Your task to perform on an android device: Search for custom made wallets on etsy.com Image 0: 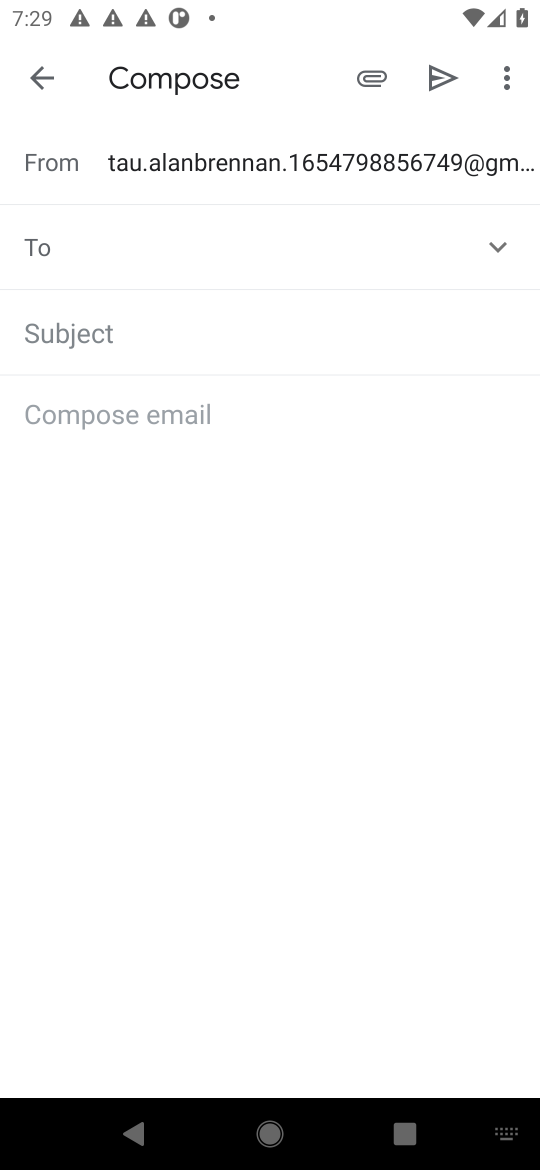
Step 0: press home button
Your task to perform on an android device: Search for custom made wallets on etsy.com Image 1: 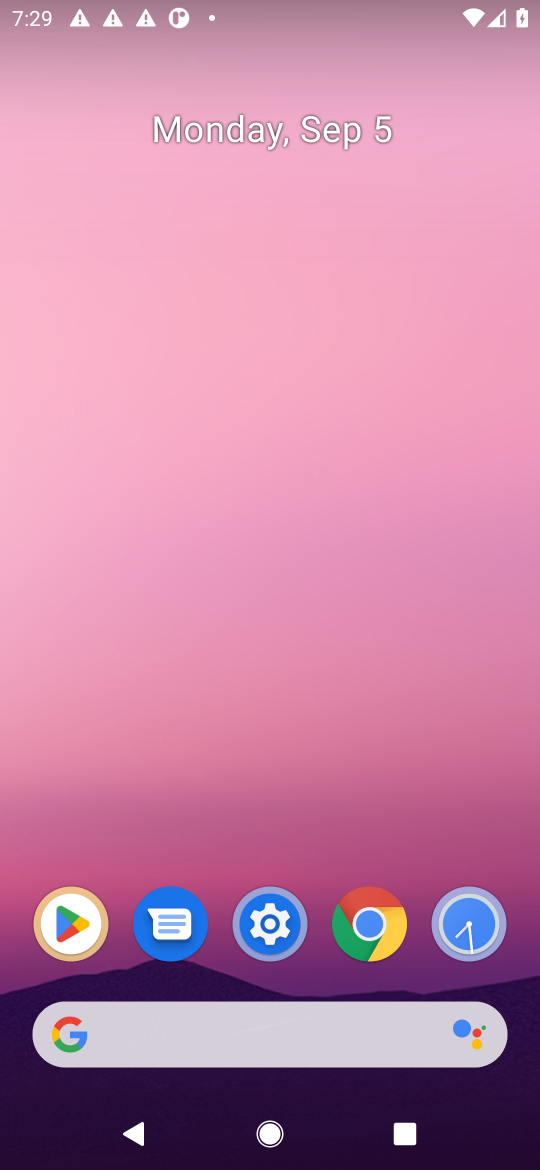
Step 1: click (333, 1039)
Your task to perform on an android device: Search for custom made wallets on etsy.com Image 2: 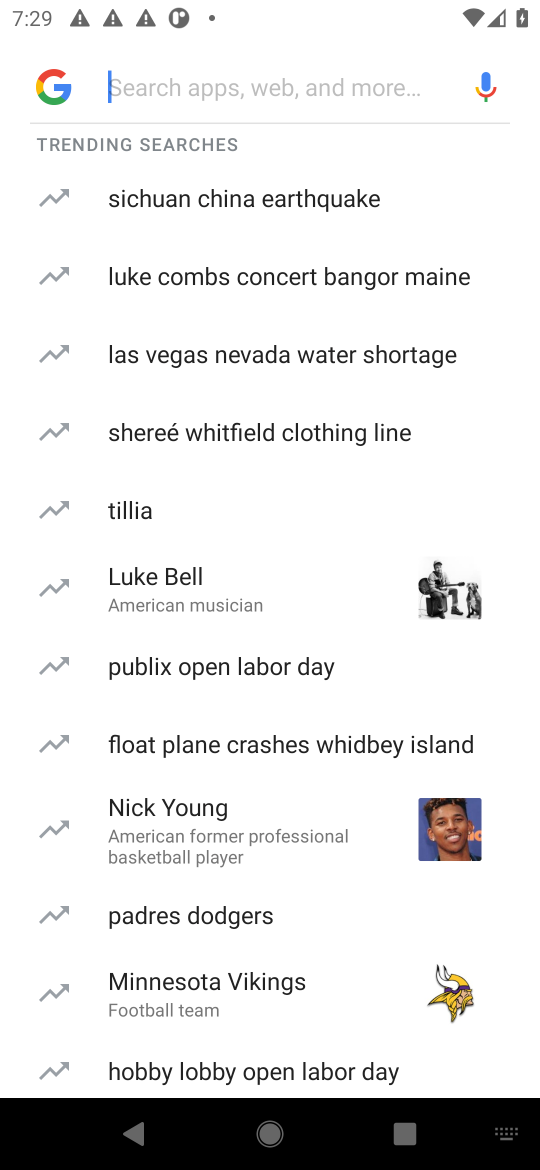
Step 2: type "etsy.com"
Your task to perform on an android device: Search for custom made wallets on etsy.com Image 3: 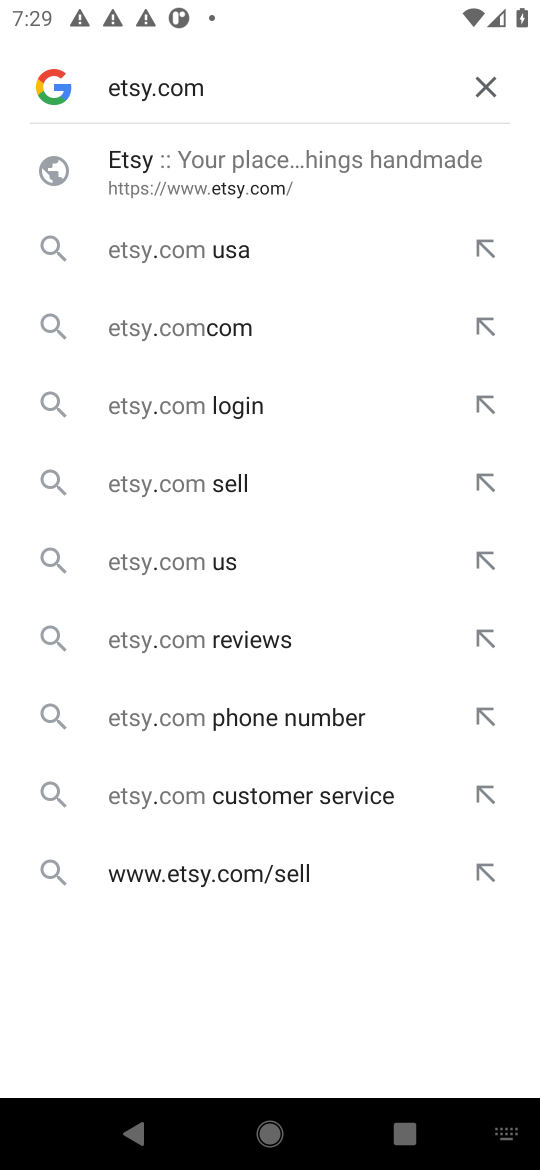
Step 3: press enter
Your task to perform on an android device: Search for custom made wallets on etsy.com Image 4: 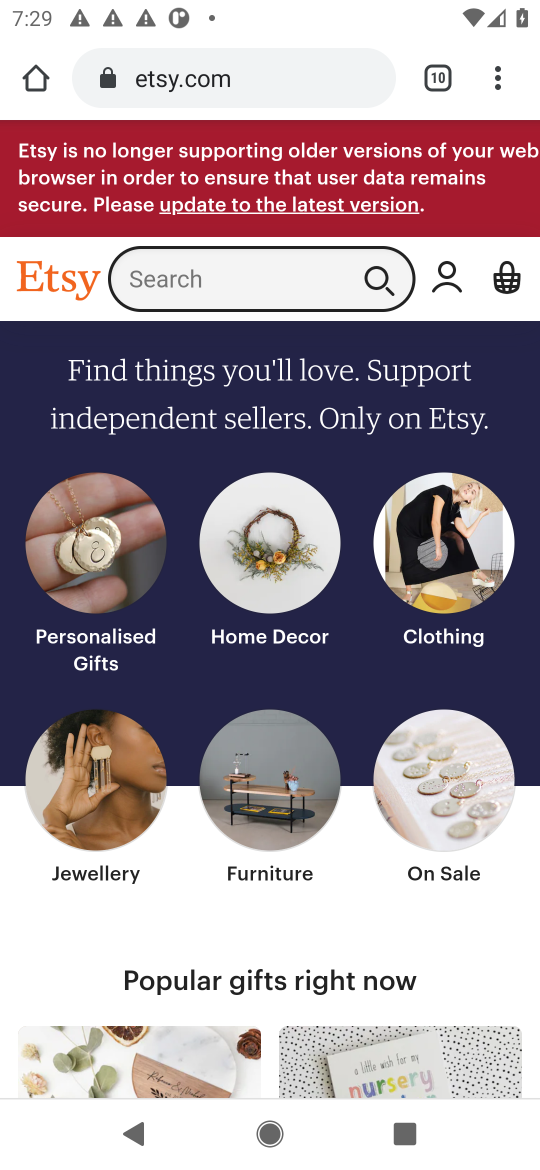
Step 4: click (148, 278)
Your task to perform on an android device: Search for custom made wallets on etsy.com Image 5: 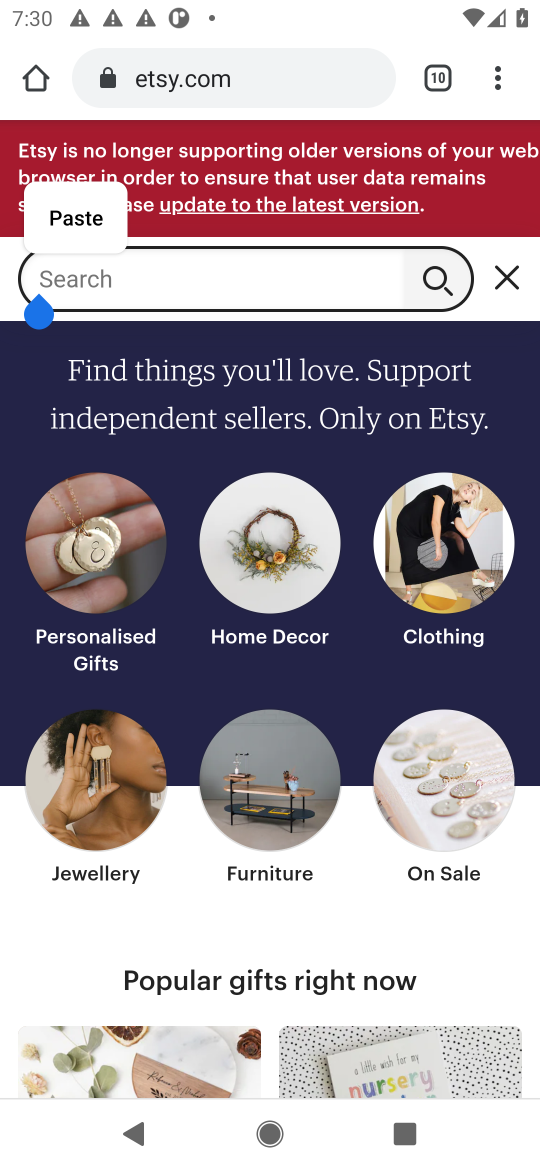
Step 5: type "custom made wallets"
Your task to perform on an android device: Search for custom made wallets on etsy.com Image 6: 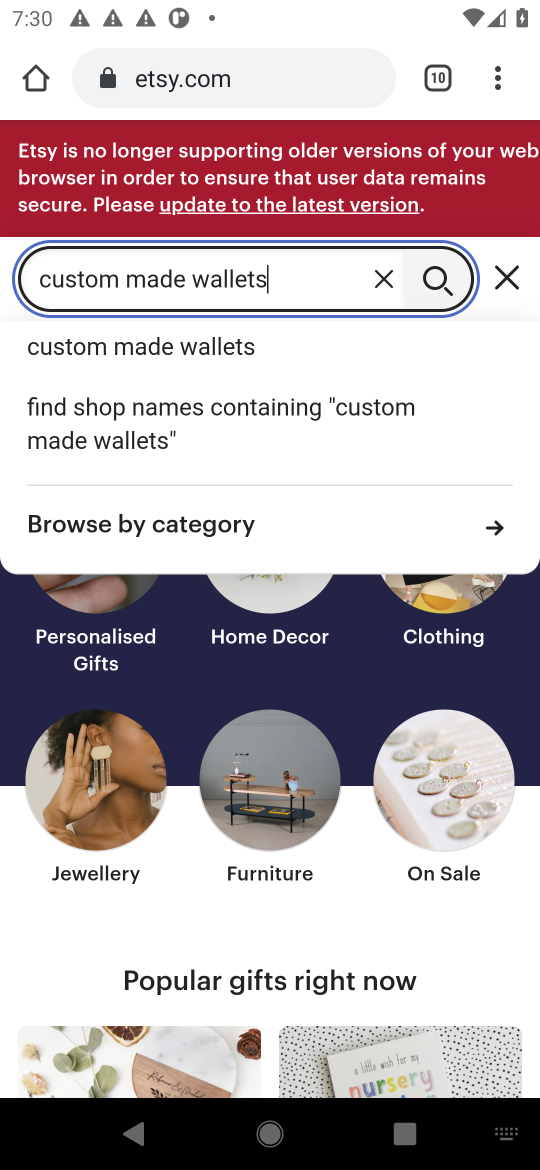
Step 6: click (253, 352)
Your task to perform on an android device: Search for custom made wallets on etsy.com Image 7: 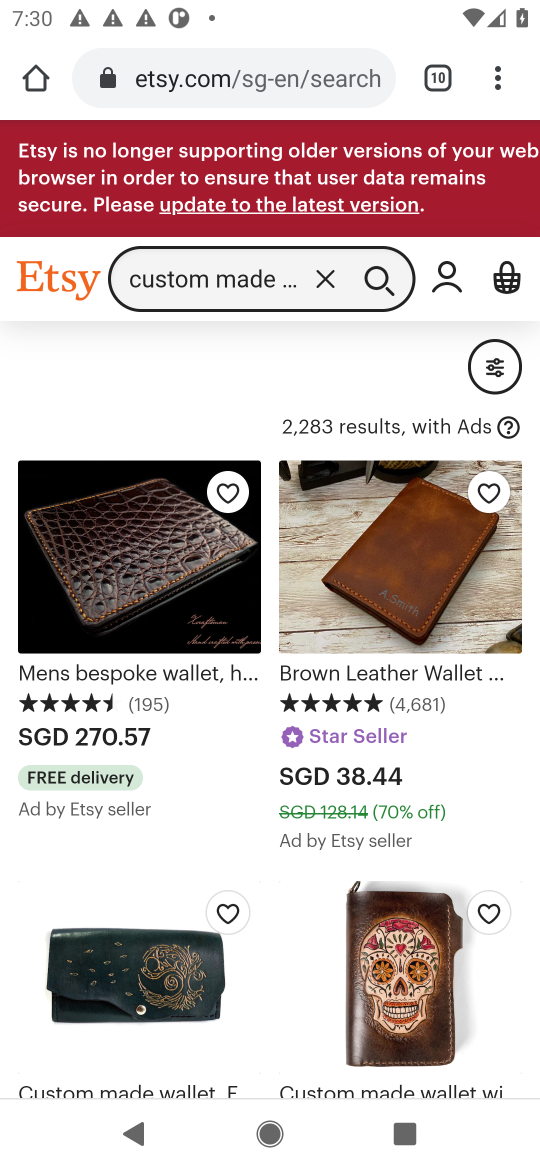
Step 7: task complete